Your task to perform on an android device: change keyboard looks Image 0: 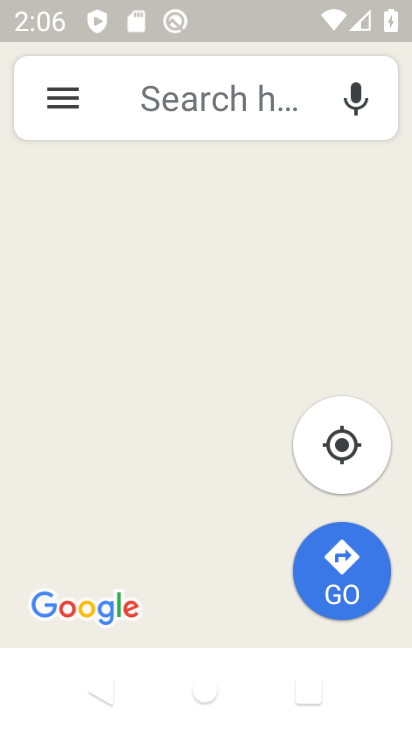
Step 0: click (251, 445)
Your task to perform on an android device: change keyboard looks Image 1: 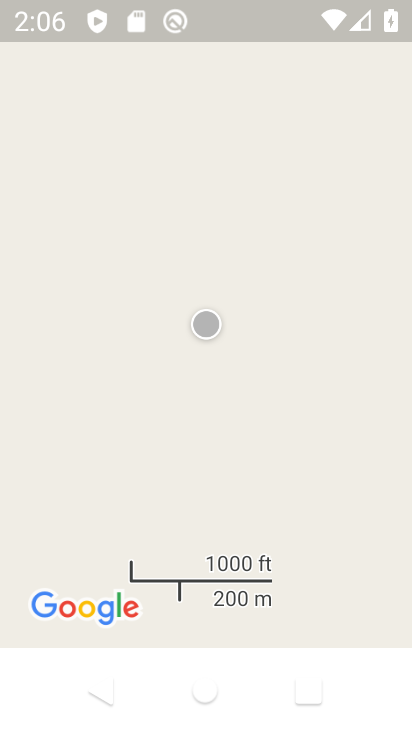
Step 1: press home button
Your task to perform on an android device: change keyboard looks Image 2: 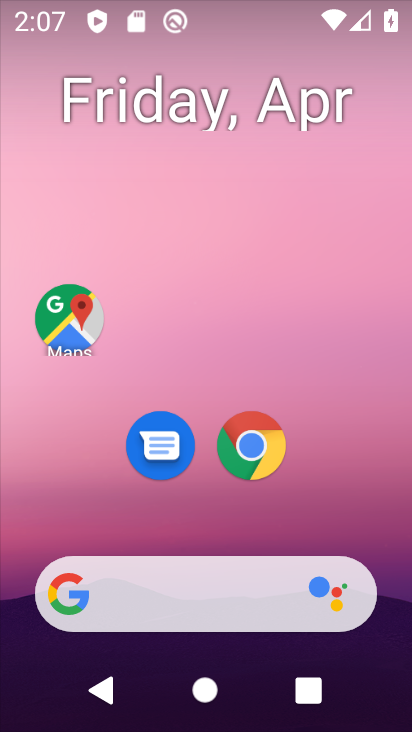
Step 2: drag from (328, 495) to (317, 54)
Your task to perform on an android device: change keyboard looks Image 3: 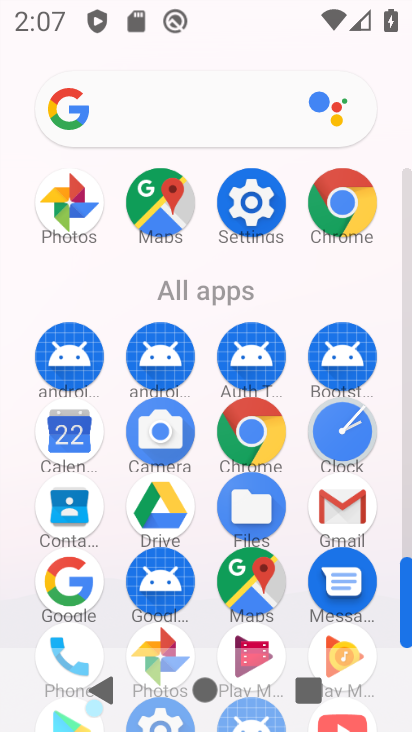
Step 3: click (249, 198)
Your task to perform on an android device: change keyboard looks Image 4: 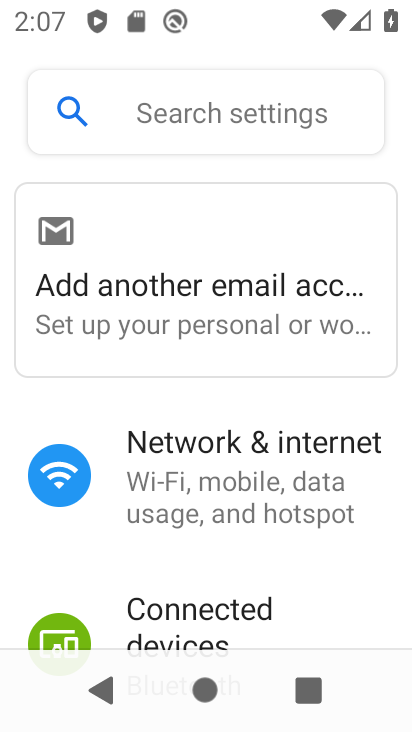
Step 4: drag from (292, 586) to (302, 366)
Your task to perform on an android device: change keyboard looks Image 5: 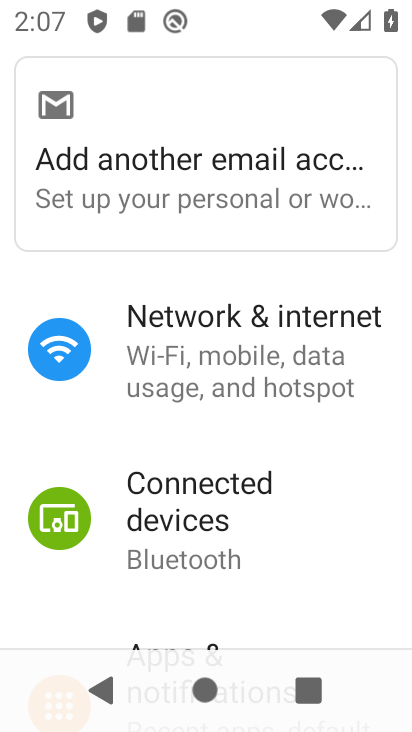
Step 5: drag from (221, 581) to (283, 415)
Your task to perform on an android device: change keyboard looks Image 6: 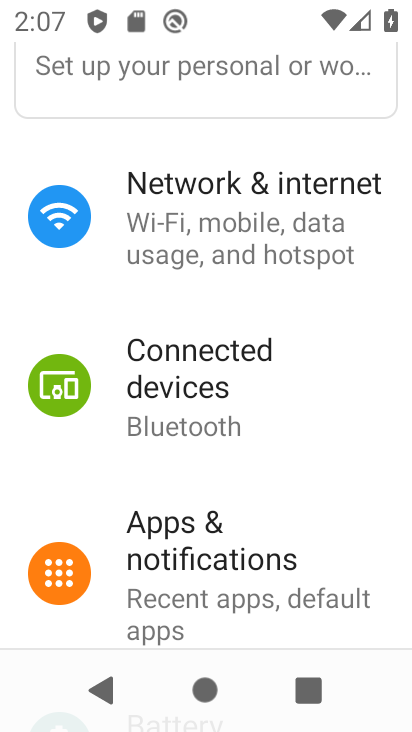
Step 6: drag from (243, 486) to (276, 367)
Your task to perform on an android device: change keyboard looks Image 7: 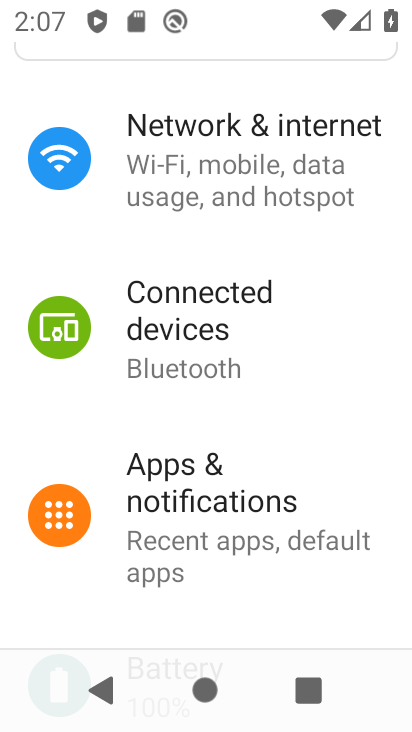
Step 7: drag from (227, 569) to (276, 403)
Your task to perform on an android device: change keyboard looks Image 8: 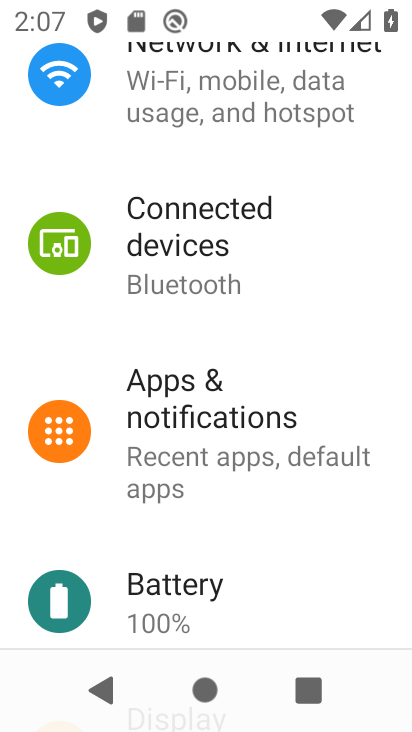
Step 8: drag from (231, 530) to (295, 328)
Your task to perform on an android device: change keyboard looks Image 9: 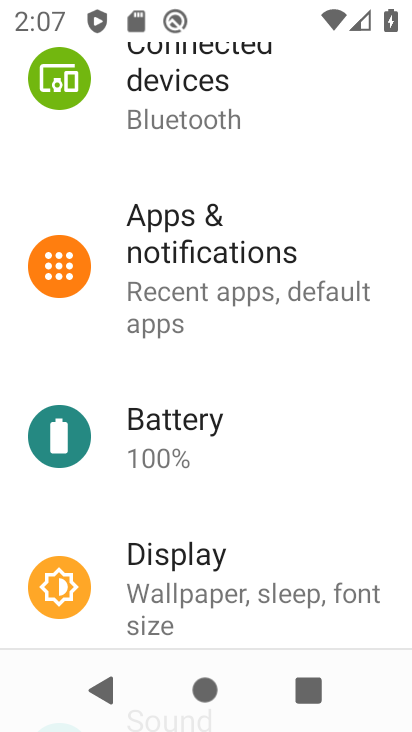
Step 9: drag from (225, 504) to (287, 363)
Your task to perform on an android device: change keyboard looks Image 10: 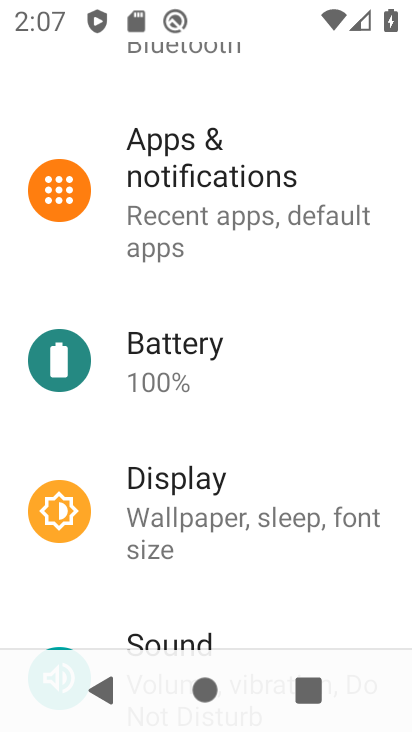
Step 10: drag from (211, 422) to (292, 282)
Your task to perform on an android device: change keyboard looks Image 11: 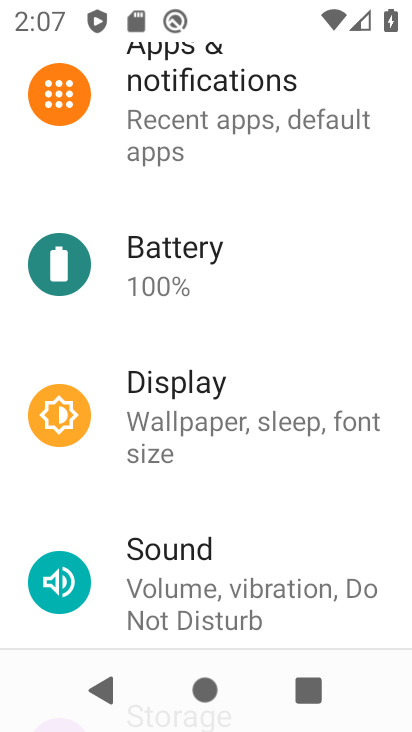
Step 11: drag from (195, 488) to (262, 358)
Your task to perform on an android device: change keyboard looks Image 12: 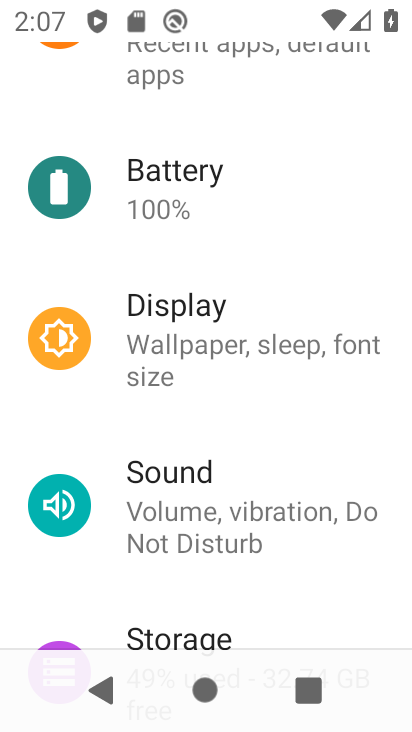
Step 12: drag from (198, 593) to (280, 429)
Your task to perform on an android device: change keyboard looks Image 13: 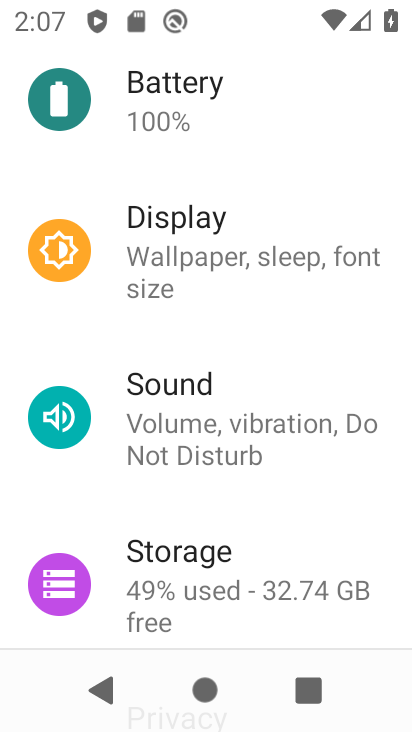
Step 13: drag from (210, 508) to (293, 341)
Your task to perform on an android device: change keyboard looks Image 14: 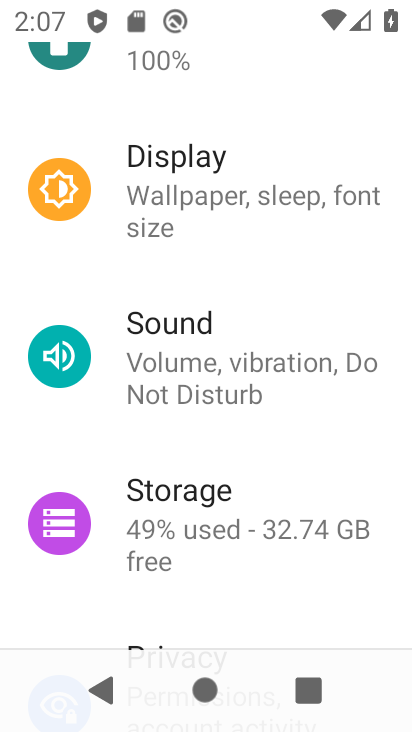
Step 14: drag from (176, 607) to (260, 414)
Your task to perform on an android device: change keyboard looks Image 15: 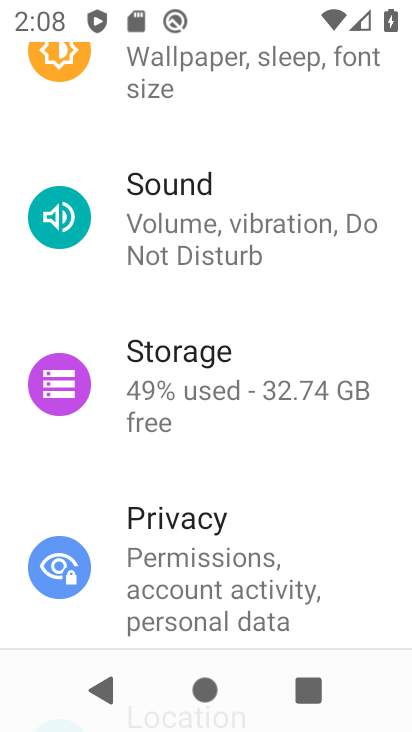
Step 15: drag from (191, 466) to (283, 301)
Your task to perform on an android device: change keyboard looks Image 16: 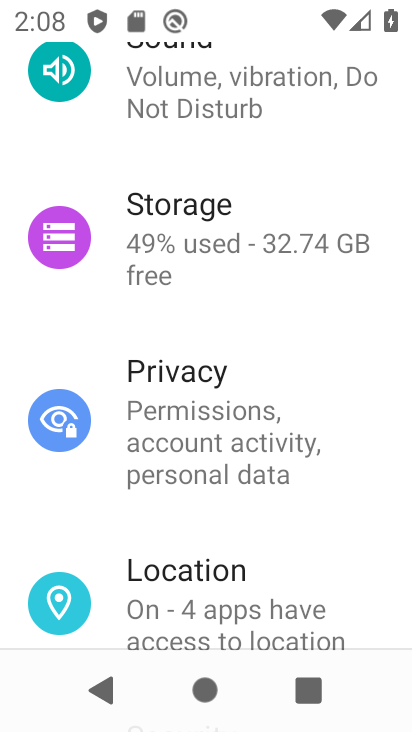
Step 16: drag from (178, 528) to (272, 340)
Your task to perform on an android device: change keyboard looks Image 17: 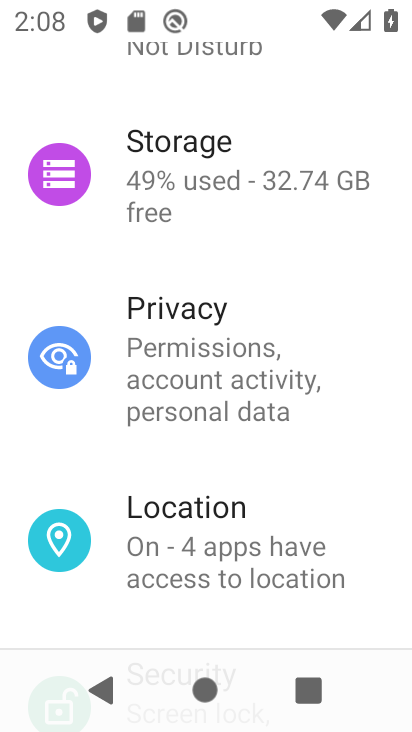
Step 17: drag from (159, 480) to (254, 318)
Your task to perform on an android device: change keyboard looks Image 18: 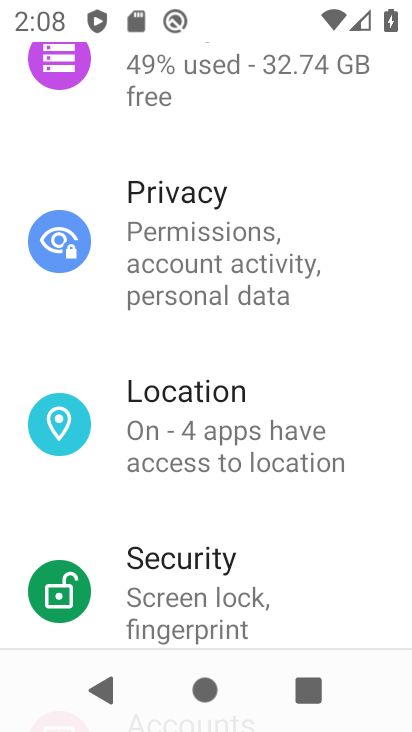
Step 18: drag from (175, 373) to (278, 268)
Your task to perform on an android device: change keyboard looks Image 19: 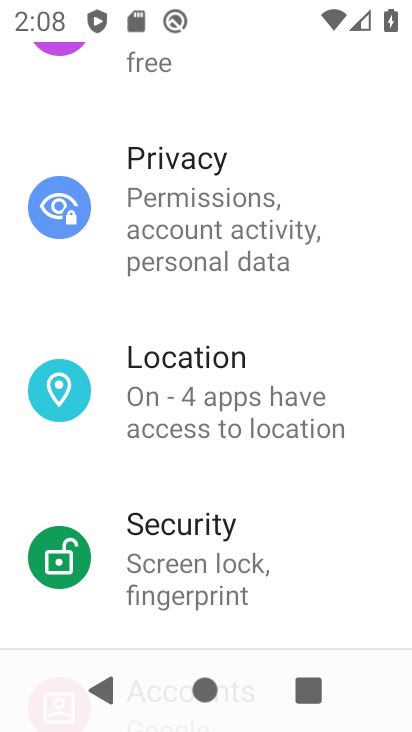
Step 19: drag from (169, 479) to (270, 292)
Your task to perform on an android device: change keyboard looks Image 20: 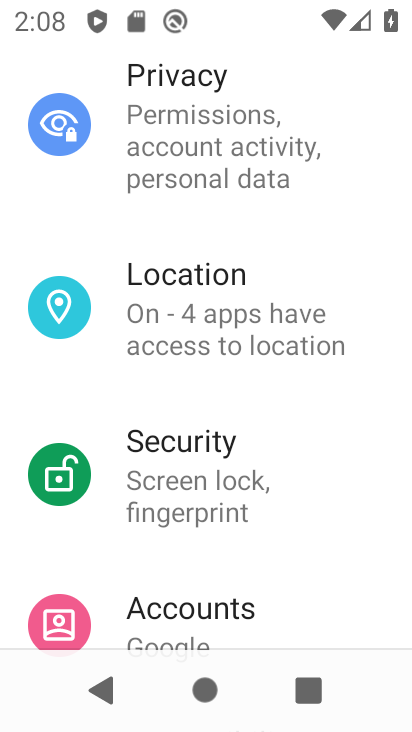
Step 20: drag from (159, 553) to (290, 390)
Your task to perform on an android device: change keyboard looks Image 21: 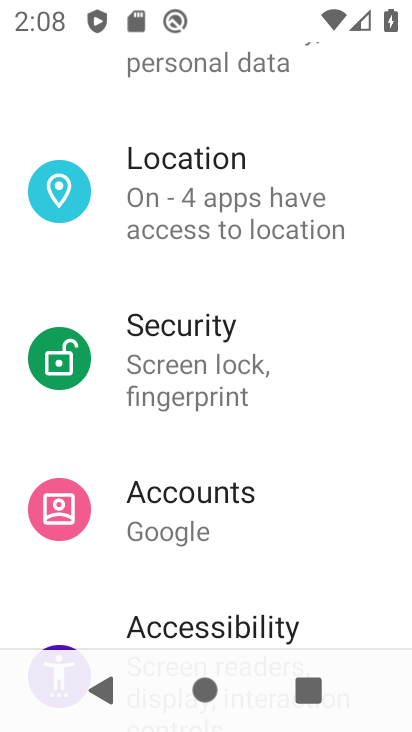
Step 21: drag from (142, 575) to (256, 412)
Your task to perform on an android device: change keyboard looks Image 22: 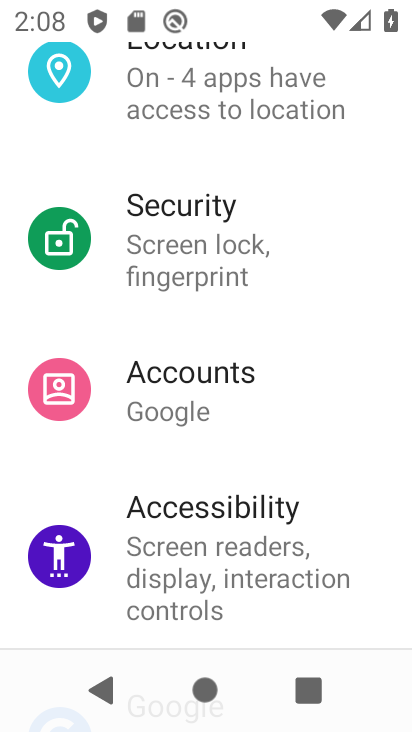
Step 22: drag from (122, 463) to (233, 340)
Your task to perform on an android device: change keyboard looks Image 23: 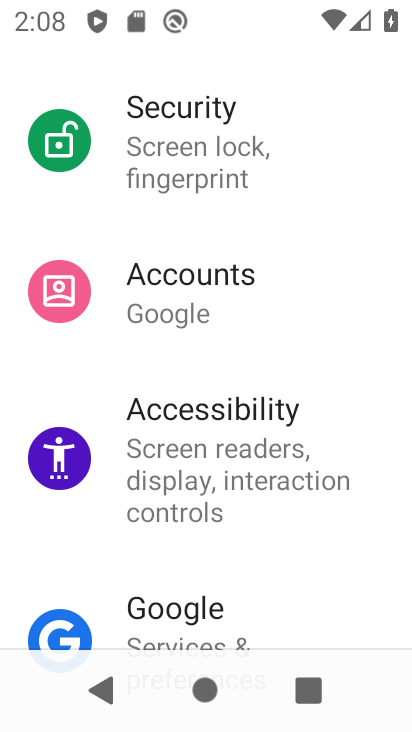
Step 23: drag from (80, 550) to (210, 314)
Your task to perform on an android device: change keyboard looks Image 24: 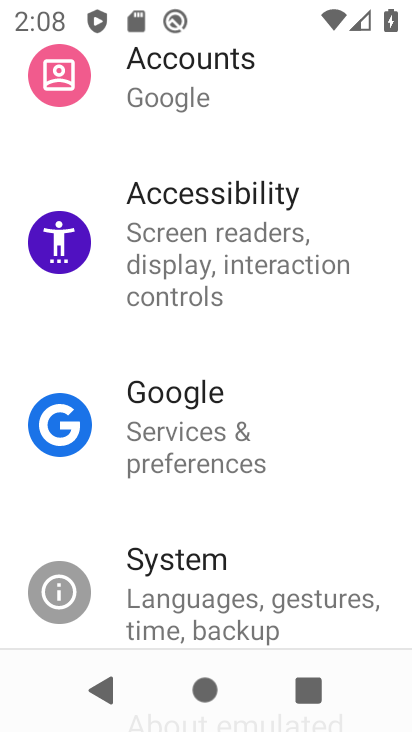
Step 24: drag from (90, 530) to (189, 342)
Your task to perform on an android device: change keyboard looks Image 25: 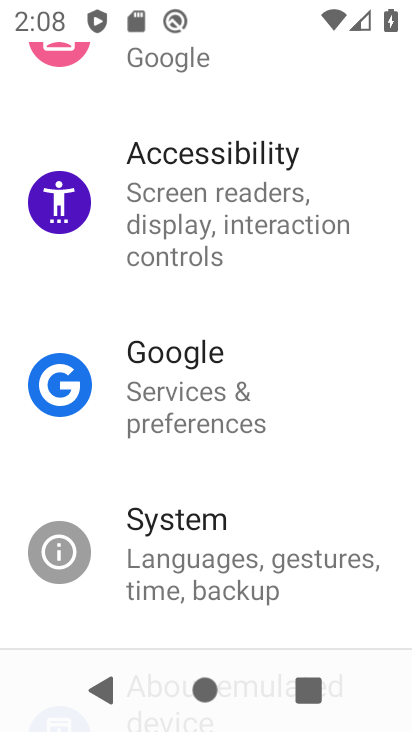
Step 25: click (164, 521)
Your task to perform on an android device: change keyboard looks Image 26: 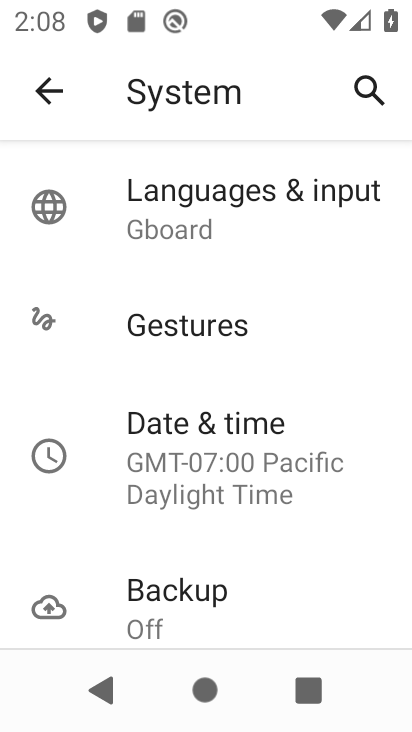
Step 26: click (257, 186)
Your task to perform on an android device: change keyboard looks Image 27: 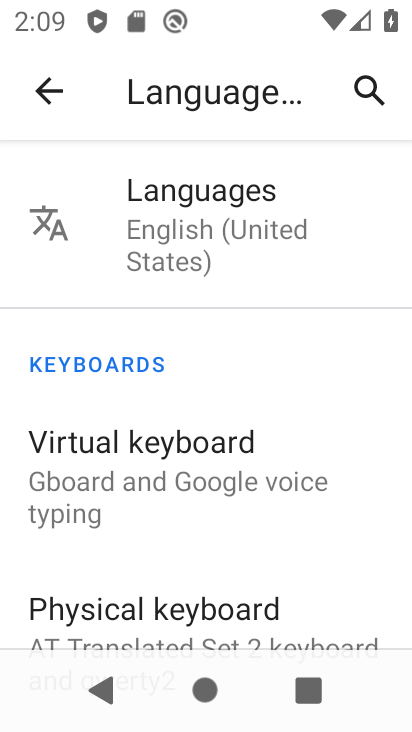
Step 27: click (208, 445)
Your task to perform on an android device: change keyboard looks Image 28: 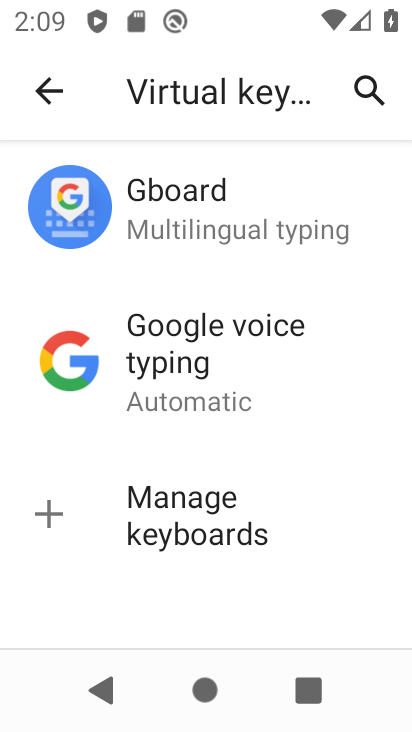
Step 28: click (220, 222)
Your task to perform on an android device: change keyboard looks Image 29: 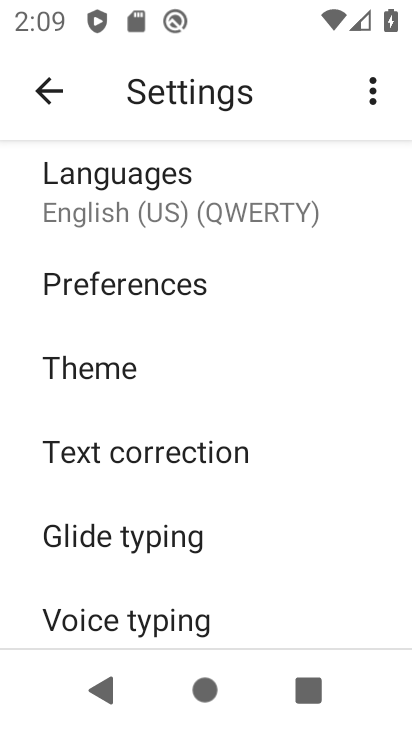
Step 29: click (86, 371)
Your task to perform on an android device: change keyboard looks Image 30: 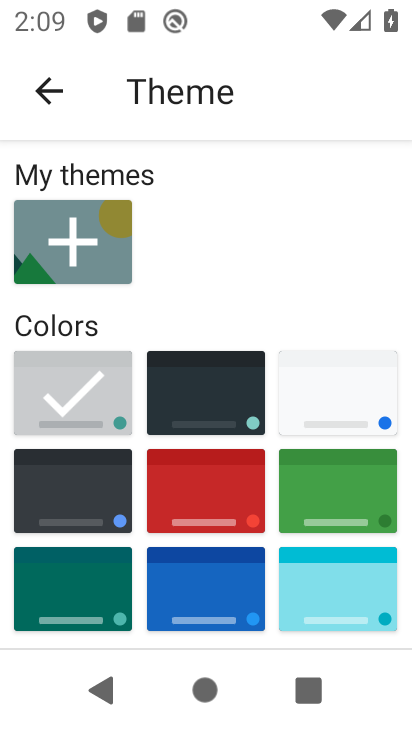
Step 30: click (200, 483)
Your task to perform on an android device: change keyboard looks Image 31: 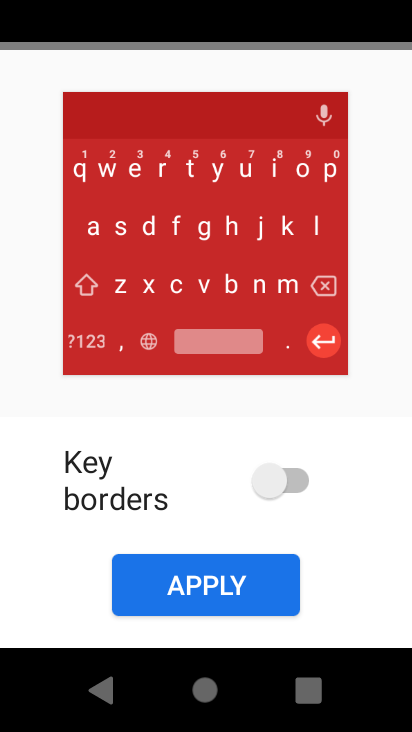
Step 31: click (278, 472)
Your task to perform on an android device: change keyboard looks Image 32: 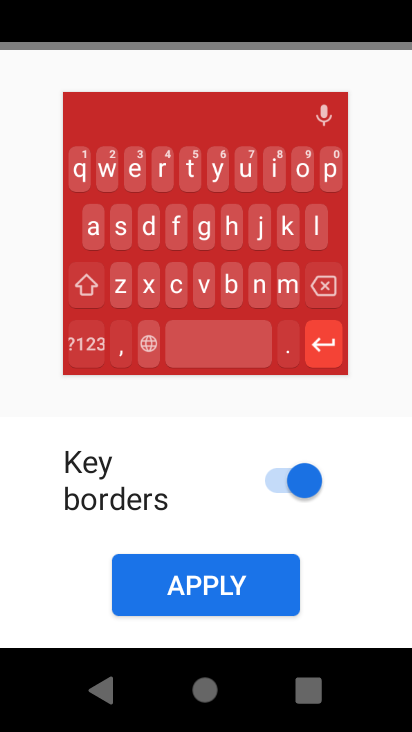
Step 32: click (211, 593)
Your task to perform on an android device: change keyboard looks Image 33: 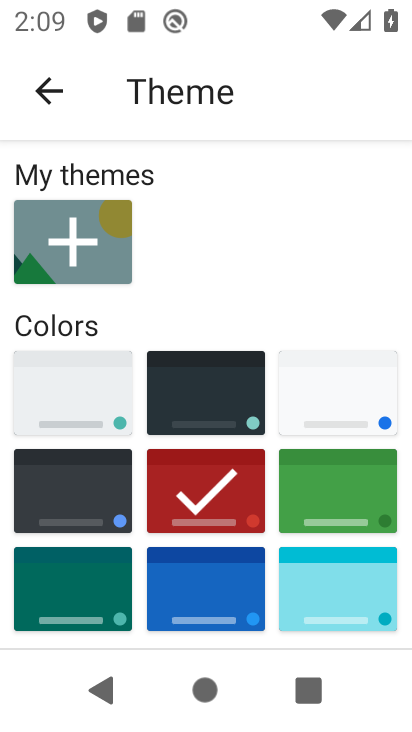
Step 33: task complete